Your task to perform on an android device: turn on translation in the chrome app Image 0: 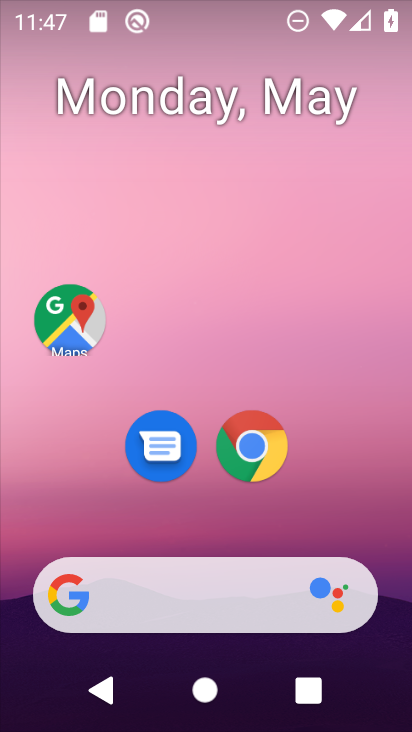
Step 0: click (253, 447)
Your task to perform on an android device: turn on translation in the chrome app Image 1: 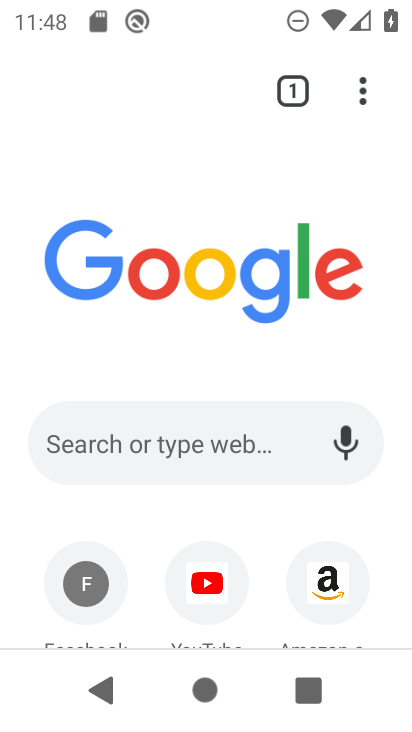
Step 1: click (363, 90)
Your task to perform on an android device: turn on translation in the chrome app Image 2: 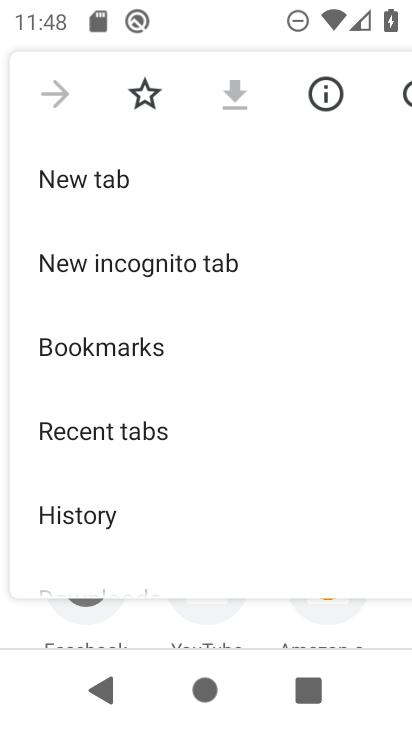
Step 2: drag from (101, 478) to (146, 408)
Your task to perform on an android device: turn on translation in the chrome app Image 3: 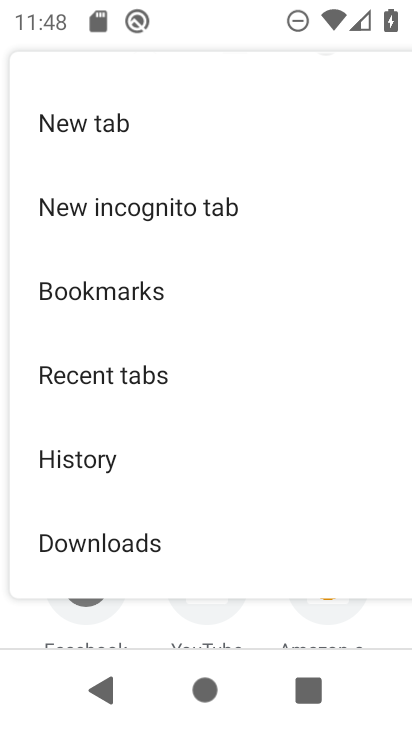
Step 3: drag from (104, 493) to (143, 430)
Your task to perform on an android device: turn on translation in the chrome app Image 4: 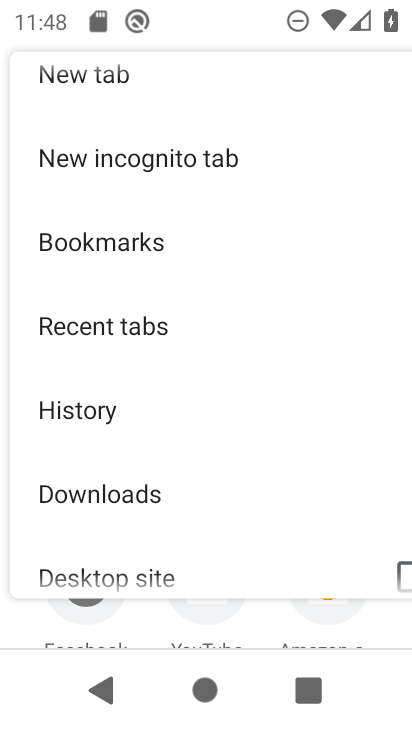
Step 4: drag from (86, 516) to (138, 441)
Your task to perform on an android device: turn on translation in the chrome app Image 5: 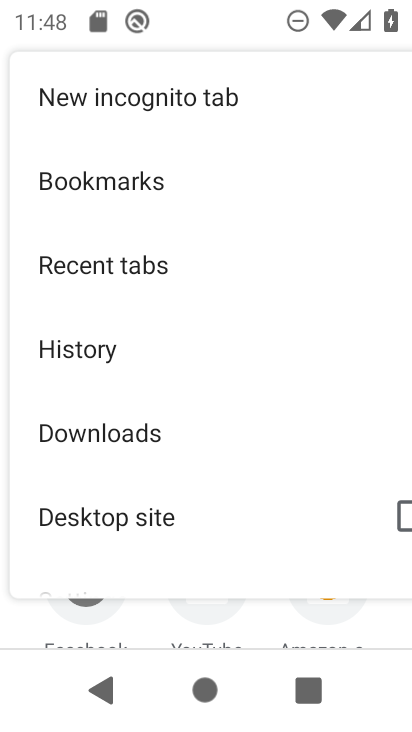
Step 5: drag from (99, 480) to (168, 394)
Your task to perform on an android device: turn on translation in the chrome app Image 6: 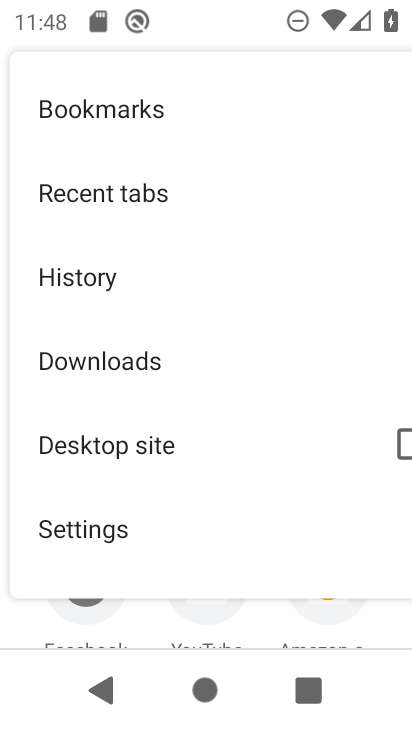
Step 6: drag from (104, 480) to (156, 390)
Your task to perform on an android device: turn on translation in the chrome app Image 7: 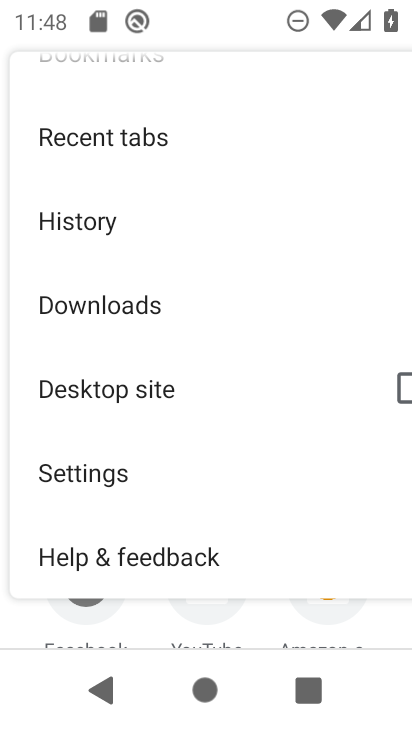
Step 7: click (102, 468)
Your task to perform on an android device: turn on translation in the chrome app Image 8: 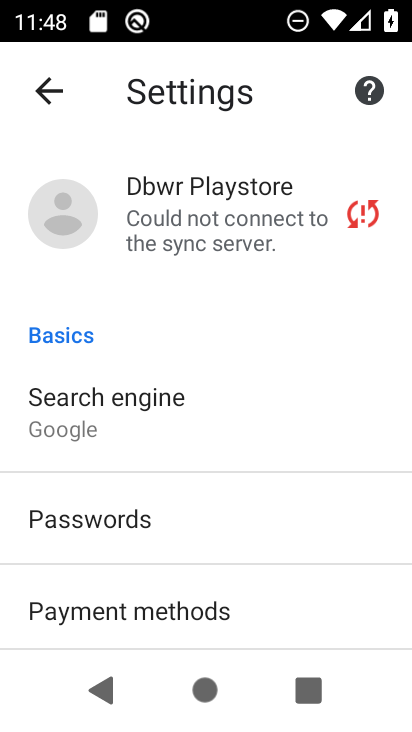
Step 8: drag from (121, 471) to (174, 384)
Your task to perform on an android device: turn on translation in the chrome app Image 9: 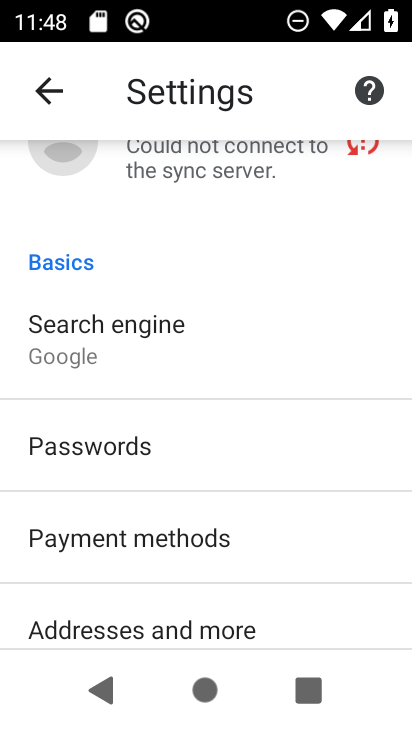
Step 9: drag from (96, 480) to (160, 391)
Your task to perform on an android device: turn on translation in the chrome app Image 10: 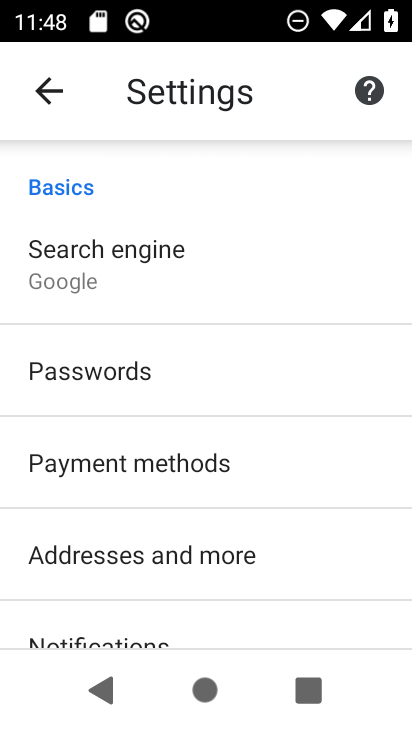
Step 10: drag from (114, 441) to (170, 367)
Your task to perform on an android device: turn on translation in the chrome app Image 11: 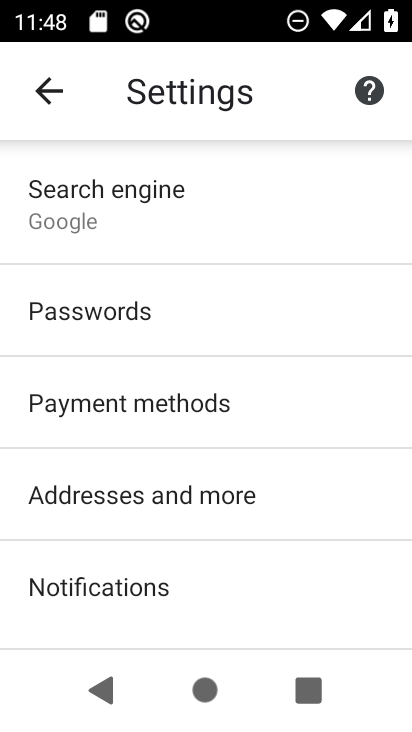
Step 11: drag from (101, 443) to (177, 350)
Your task to perform on an android device: turn on translation in the chrome app Image 12: 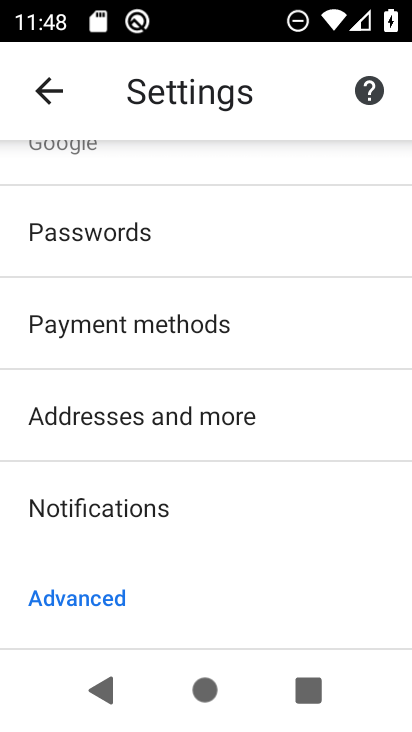
Step 12: drag from (102, 442) to (144, 356)
Your task to perform on an android device: turn on translation in the chrome app Image 13: 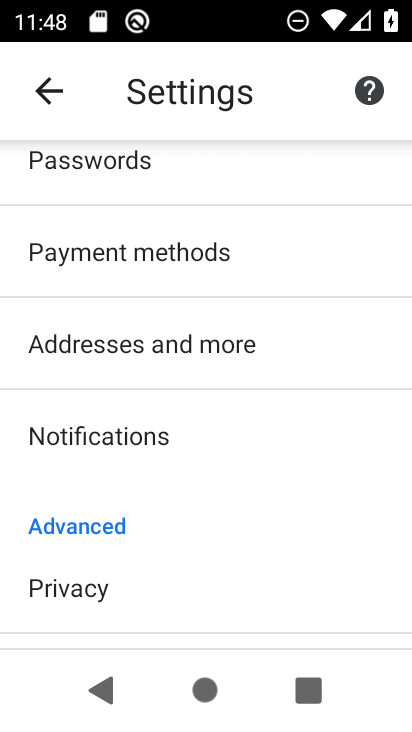
Step 13: drag from (83, 480) to (141, 366)
Your task to perform on an android device: turn on translation in the chrome app Image 14: 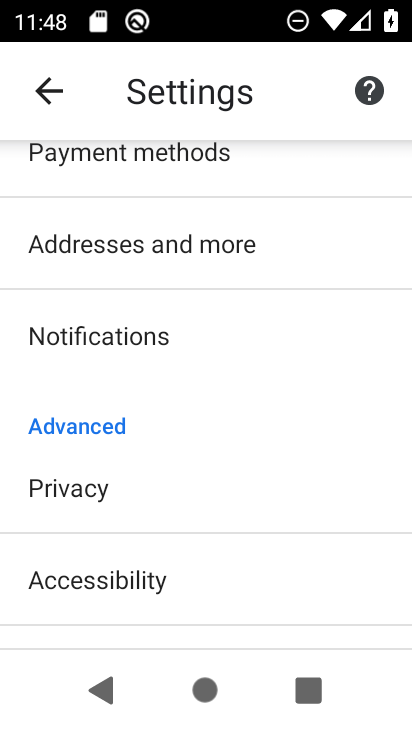
Step 14: drag from (99, 463) to (126, 344)
Your task to perform on an android device: turn on translation in the chrome app Image 15: 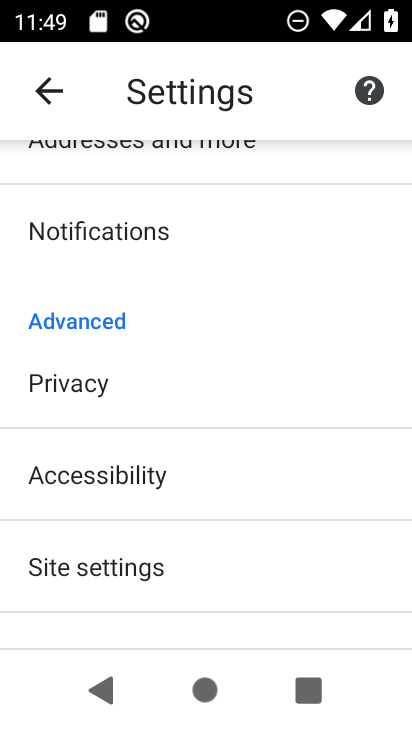
Step 15: drag from (100, 499) to (147, 399)
Your task to perform on an android device: turn on translation in the chrome app Image 16: 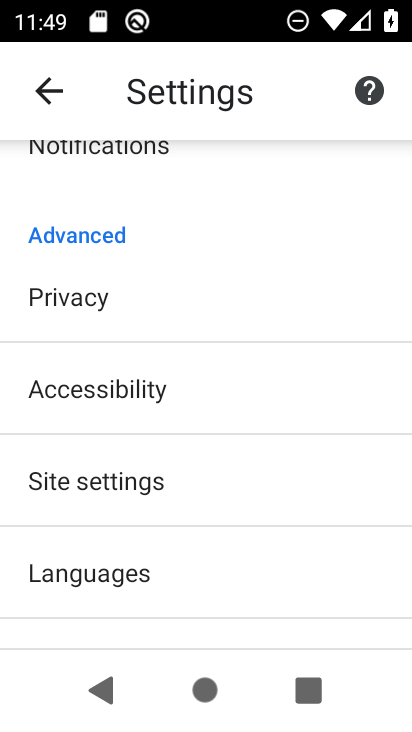
Step 16: click (102, 569)
Your task to perform on an android device: turn on translation in the chrome app Image 17: 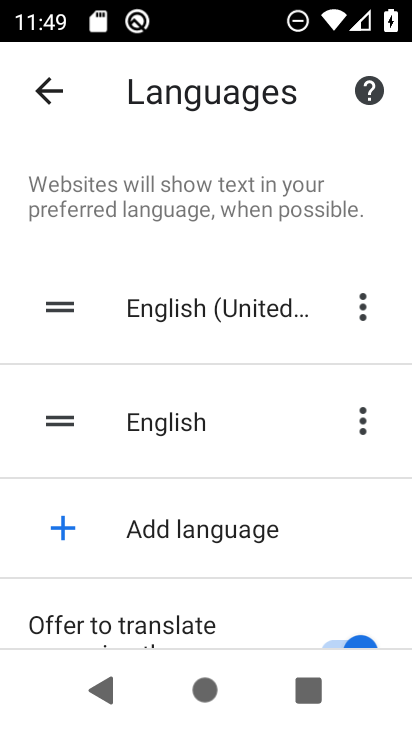
Step 17: task complete